Your task to perform on an android device: turn off sleep mode Image 0: 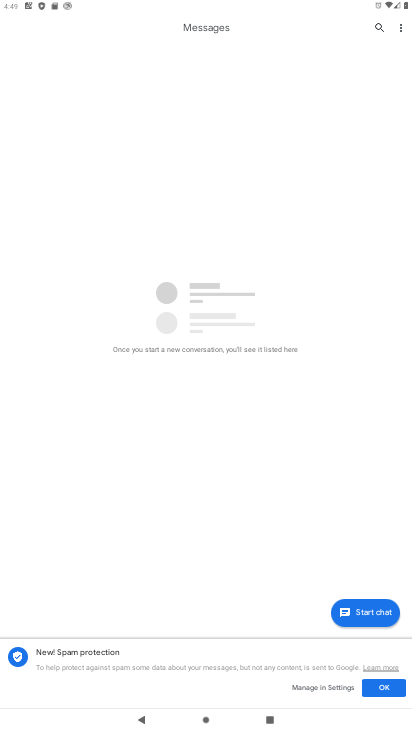
Step 0: press home button
Your task to perform on an android device: turn off sleep mode Image 1: 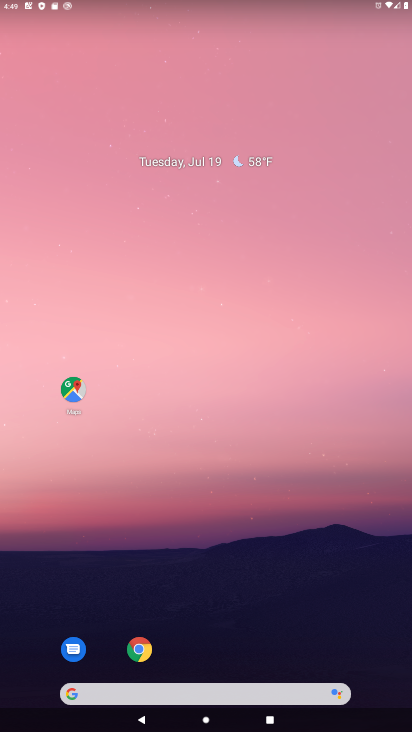
Step 1: drag from (197, 637) to (200, 68)
Your task to perform on an android device: turn off sleep mode Image 2: 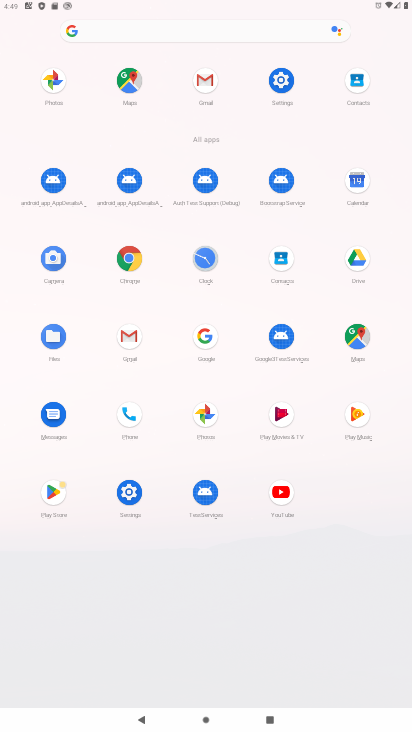
Step 2: click (280, 87)
Your task to perform on an android device: turn off sleep mode Image 3: 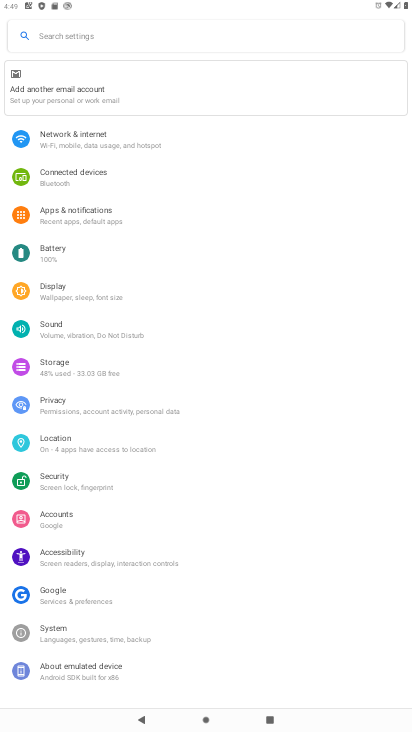
Step 3: task complete